Your task to perform on an android device: turn on priority inbox in the gmail app Image 0: 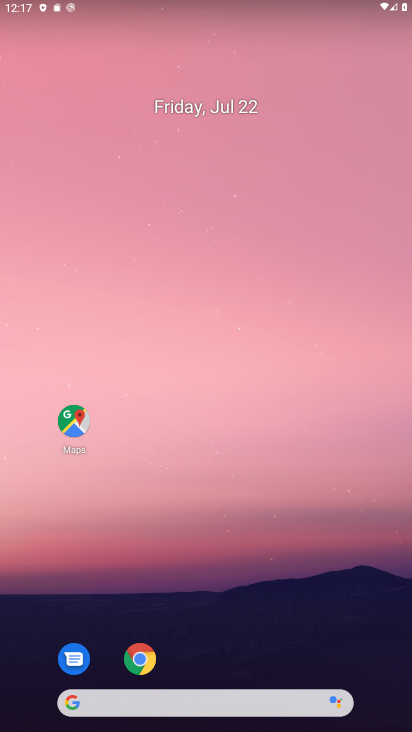
Step 0: task complete